Your task to perform on an android device: Show me productivity apps on the Play Store Image 0: 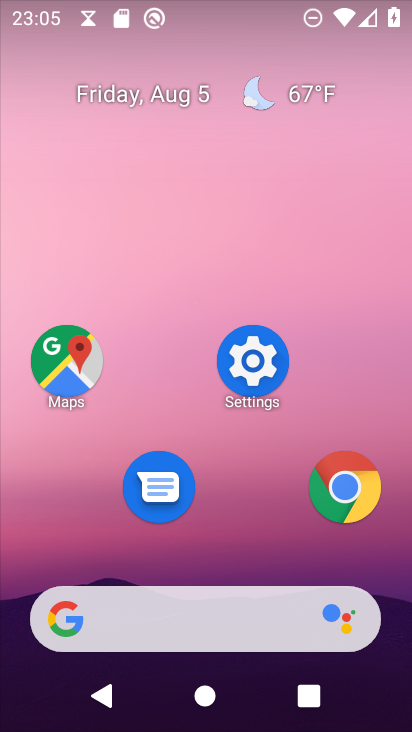
Step 0: drag from (205, 630) to (323, 65)
Your task to perform on an android device: Show me productivity apps on the Play Store Image 1: 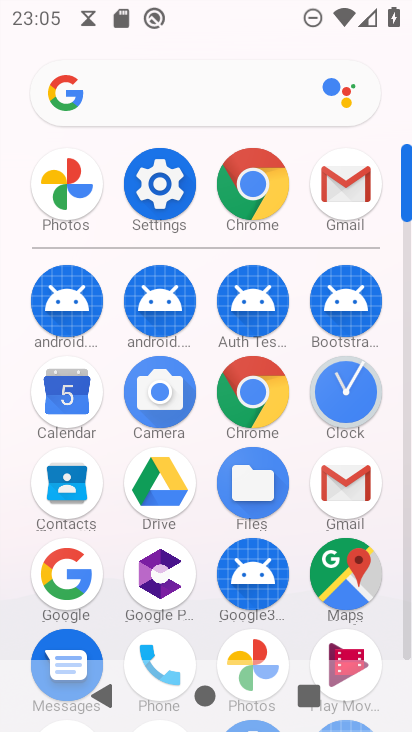
Step 1: drag from (205, 616) to (380, 48)
Your task to perform on an android device: Show me productivity apps on the Play Store Image 2: 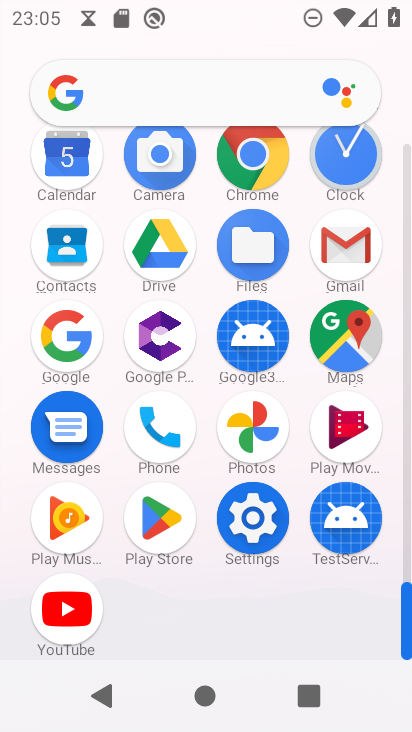
Step 2: click (157, 512)
Your task to perform on an android device: Show me productivity apps on the Play Store Image 3: 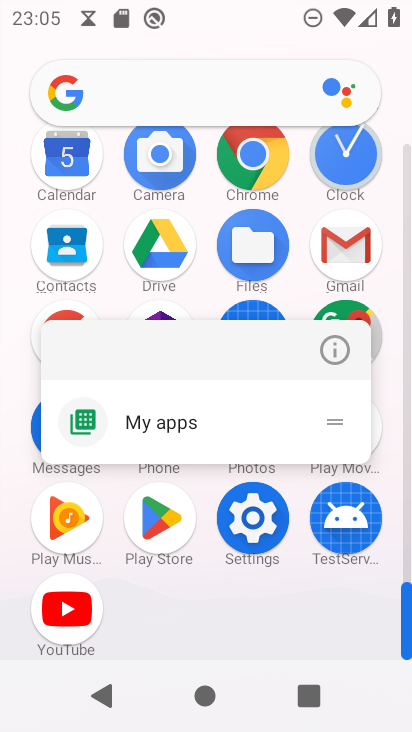
Step 3: click (154, 520)
Your task to perform on an android device: Show me productivity apps on the Play Store Image 4: 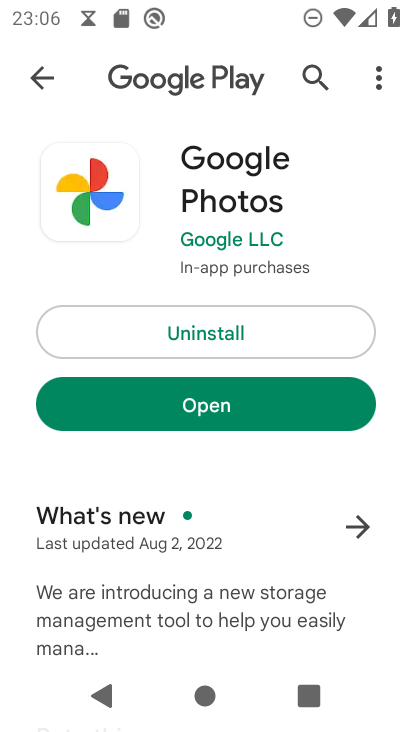
Step 4: click (43, 79)
Your task to perform on an android device: Show me productivity apps on the Play Store Image 5: 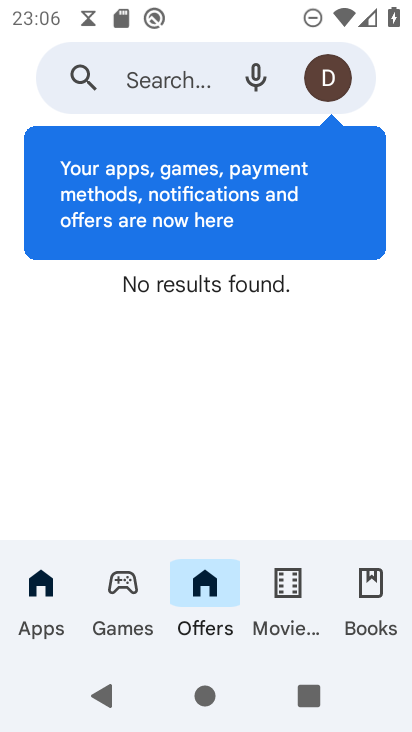
Step 5: click (44, 593)
Your task to perform on an android device: Show me productivity apps on the Play Store Image 6: 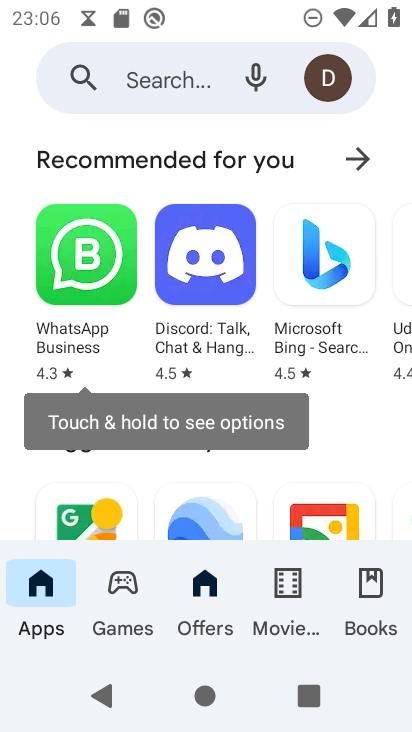
Step 6: task complete